Your task to perform on an android device: manage bookmarks in the chrome app Image 0: 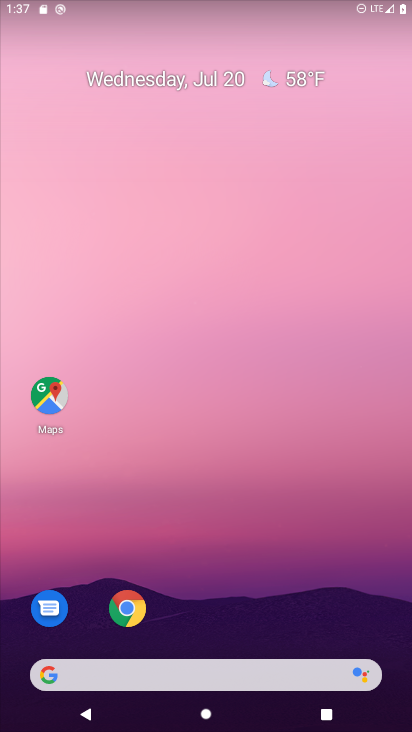
Step 0: drag from (213, 729) to (194, 156)
Your task to perform on an android device: manage bookmarks in the chrome app Image 1: 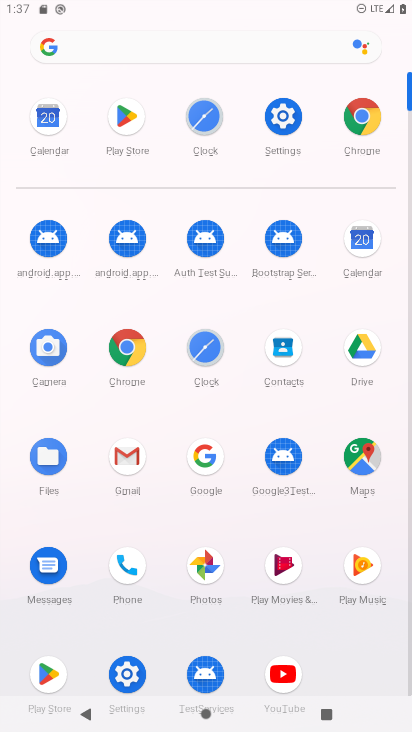
Step 1: click (123, 349)
Your task to perform on an android device: manage bookmarks in the chrome app Image 2: 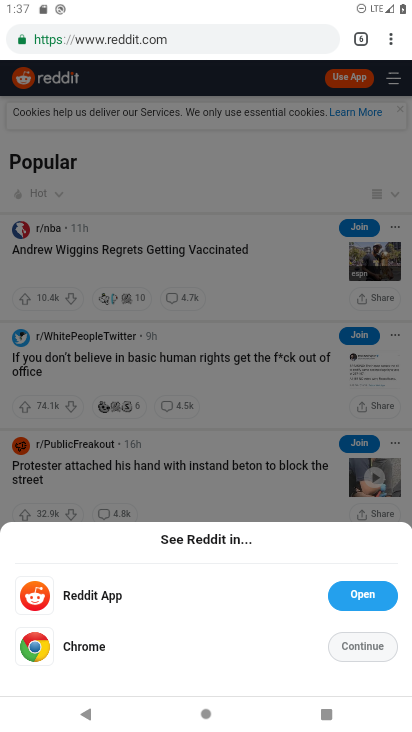
Step 2: click (389, 44)
Your task to perform on an android device: manage bookmarks in the chrome app Image 3: 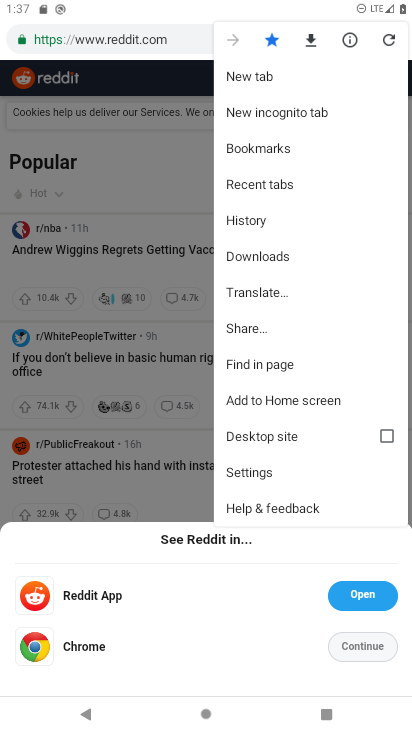
Step 3: click (261, 145)
Your task to perform on an android device: manage bookmarks in the chrome app Image 4: 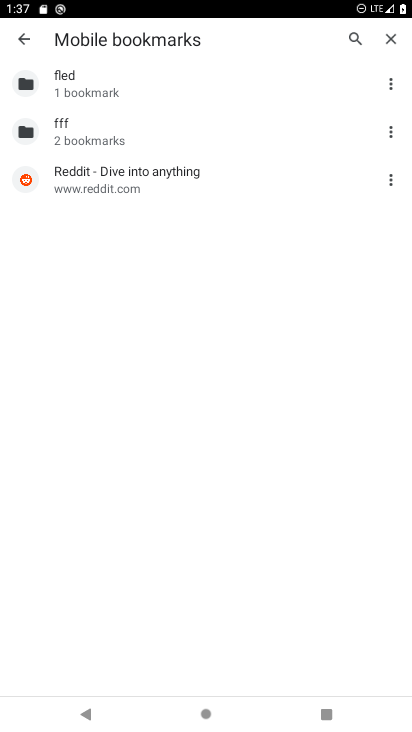
Step 4: click (393, 182)
Your task to perform on an android device: manage bookmarks in the chrome app Image 5: 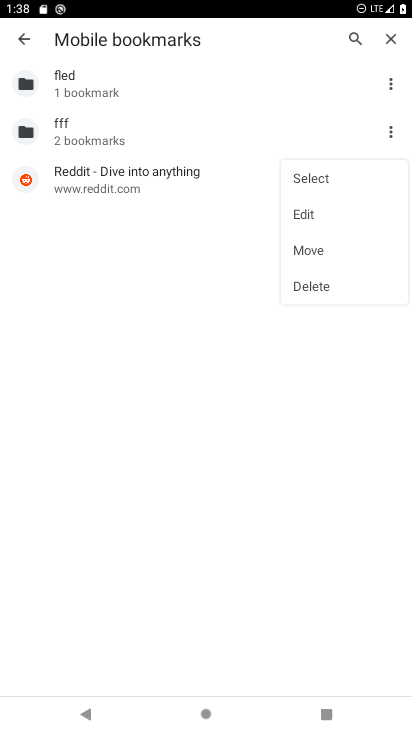
Step 5: click (306, 212)
Your task to perform on an android device: manage bookmarks in the chrome app Image 6: 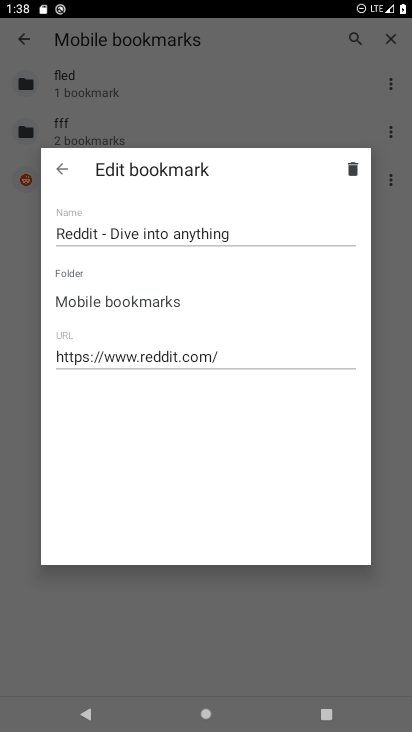
Step 6: click (137, 235)
Your task to perform on an android device: manage bookmarks in the chrome app Image 7: 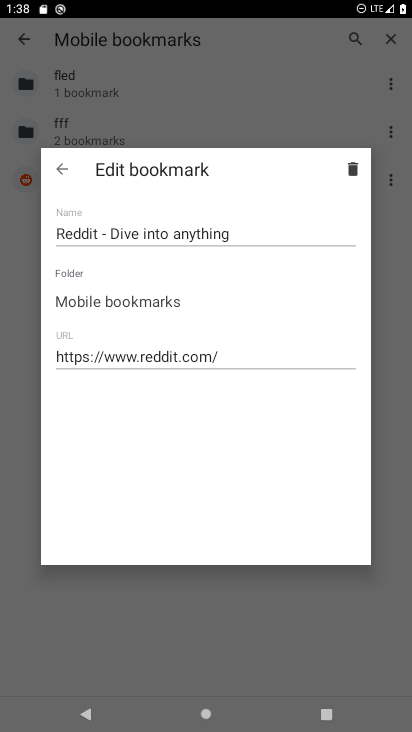
Step 7: click (137, 235)
Your task to perform on an android device: manage bookmarks in the chrome app Image 8: 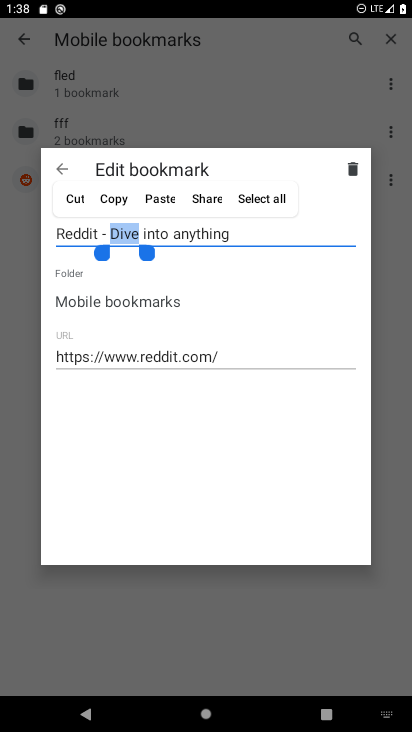
Step 8: click (80, 195)
Your task to perform on an android device: manage bookmarks in the chrome app Image 9: 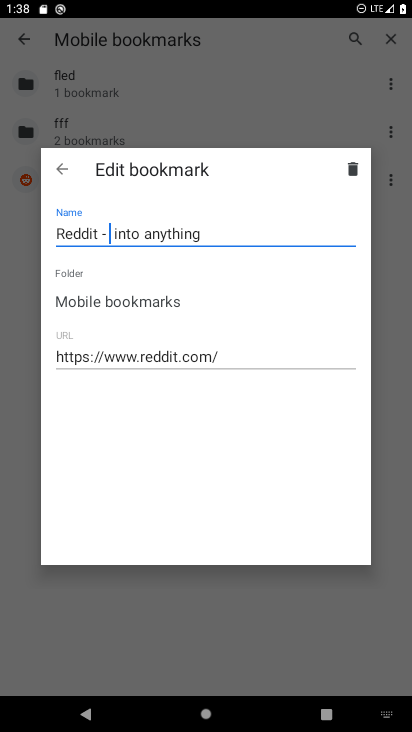
Step 9: click (62, 171)
Your task to perform on an android device: manage bookmarks in the chrome app Image 10: 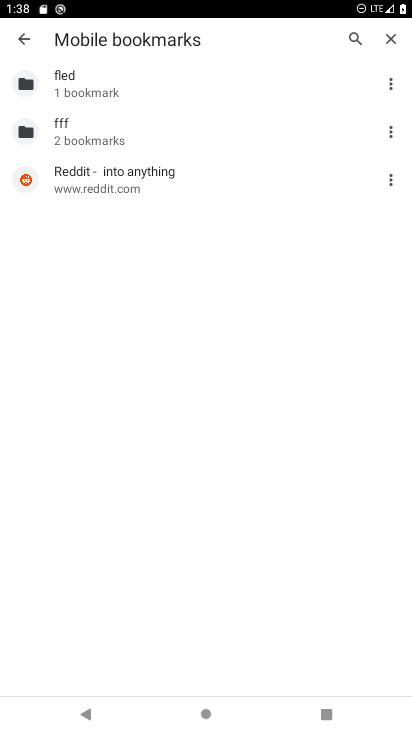
Step 10: task complete